Your task to perform on an android device: Go to Maps Image 0: 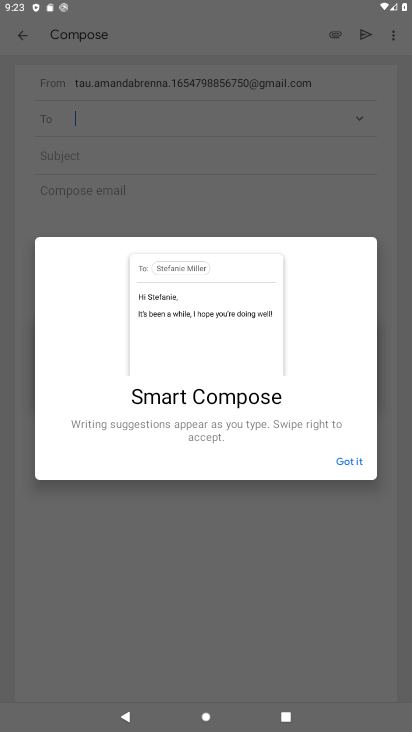
Step 0: press home button
Your task to perform on an android device: Go to Maps Image 1: 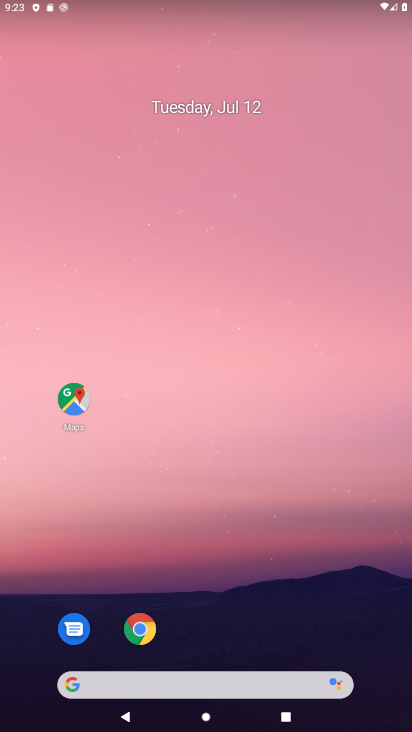
Step 1: drag from (229, 673) to (282, 206)
Your task to perform on an android device: Go to Maps Image 2: 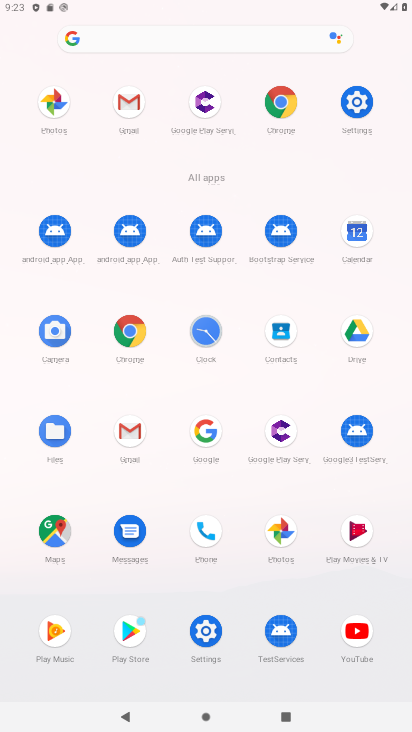
Step 2: click (60, 532)
Your task to perform on an android device: Go to Maps Image 3: 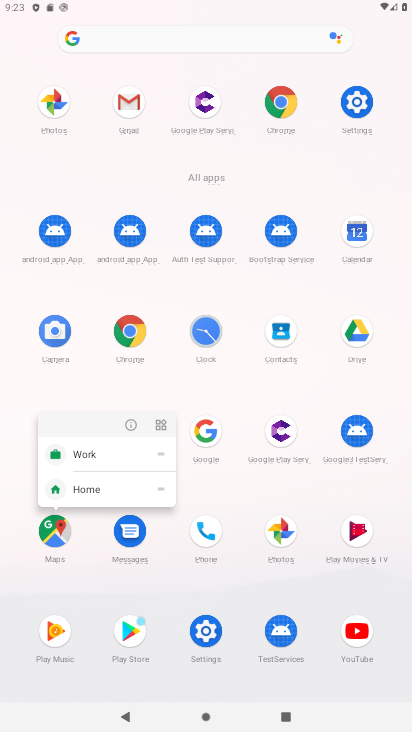
Step 3: click (60, 532)
Your task to perform on an android device: Go to Maps Image 4: 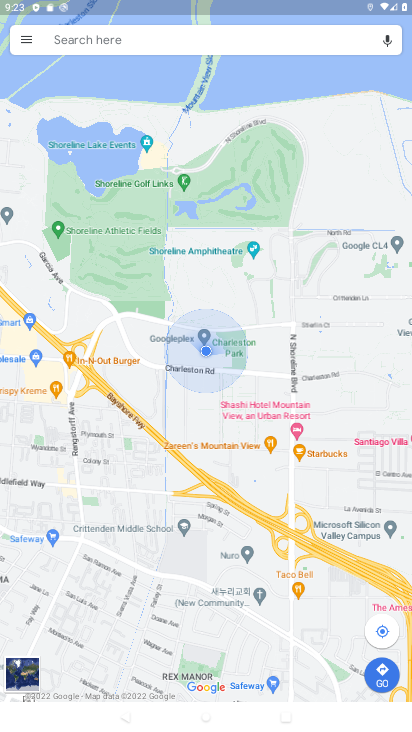
Step 4: task complete